Your task to perform on an android device: clear all cookies in the chrome app Image 0: 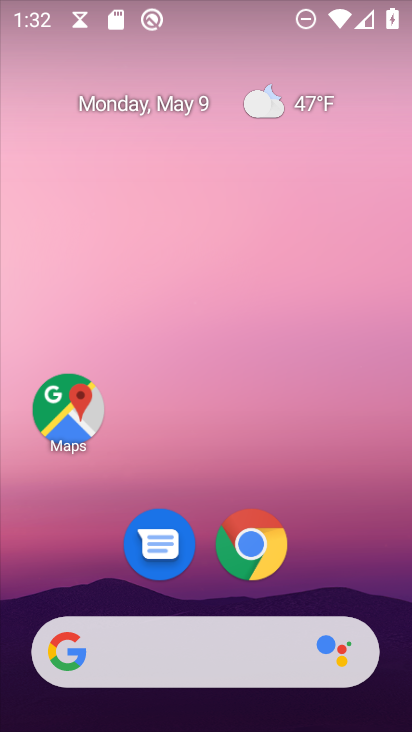
Step 0: drag from (323, 491) to (263, 79)
Your task to perform on an android device: clear all cookies in the chrome app Image 1: 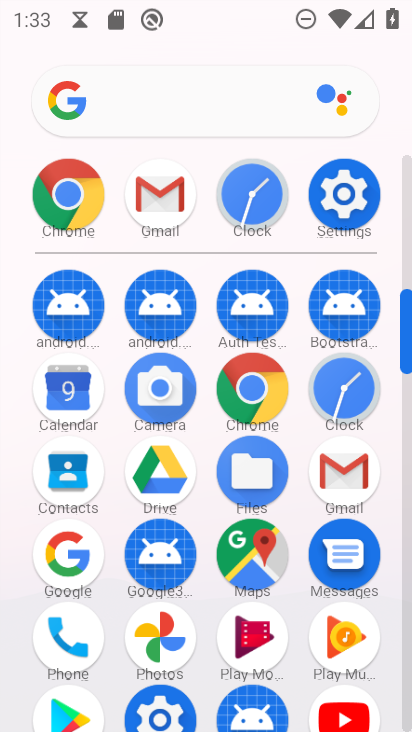
Step 1: click (75, 183)
Your task to perform on an android device: clear all cookies in the chrome app Image 2: 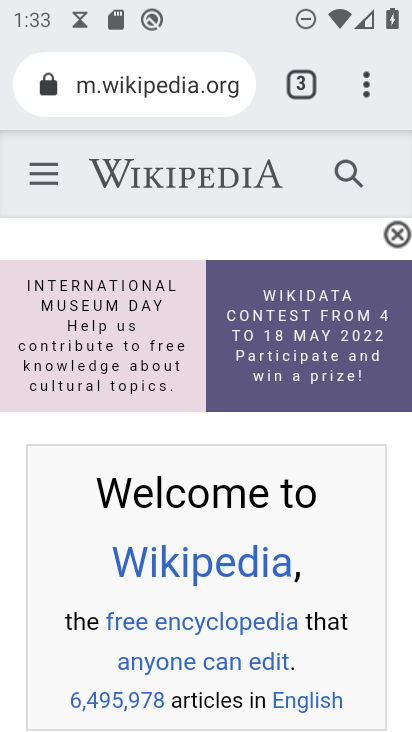
Step 2: drag from (378, 78) to (76, 469)
Your task to perform on an android device: clear all cookies in the chrome app Image 3: 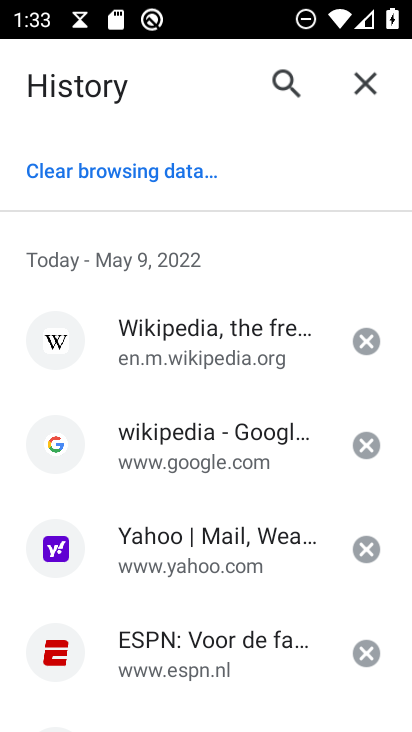
Step 3: click (118, 167)
Your task to perform on an android device: clear all cookies in the chrome app Image 4: 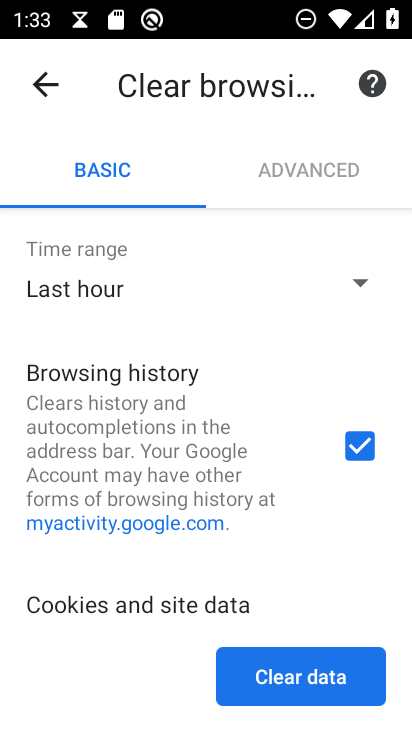
Step 4: click (346, 443)
Your task to perform on an android device: clear all cookies in the chrome app Image 5: 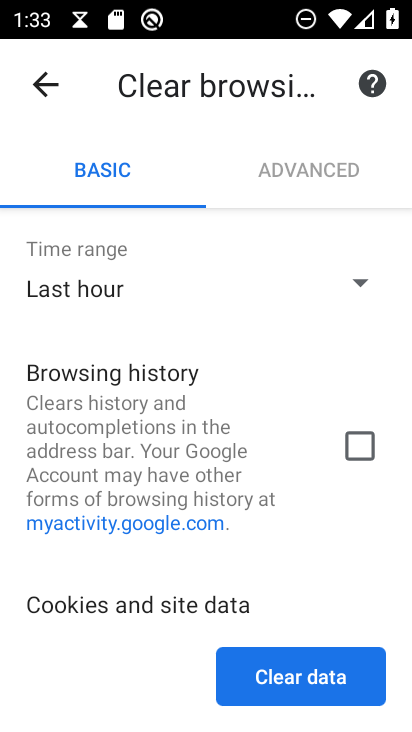
Step 5: drag from (266, 517) to (238, 174)
Your task to perform on an android device: clear all cookies in the chrome app Image 6: 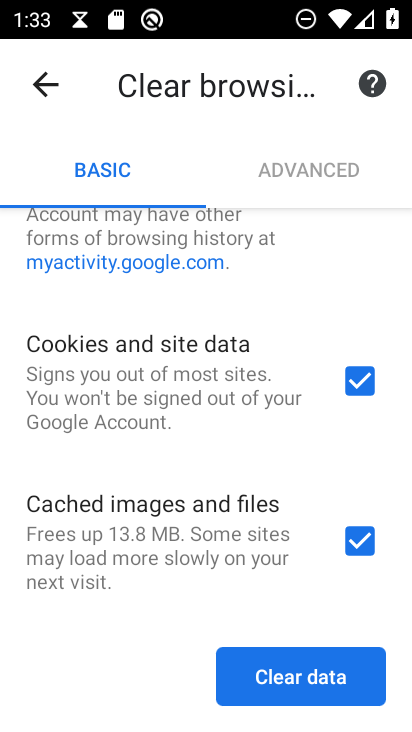
Step 6: drag from (228, 434) to (238, 313)
Your task to perform on an android device: clear all cookies in the chrome app Image 7: 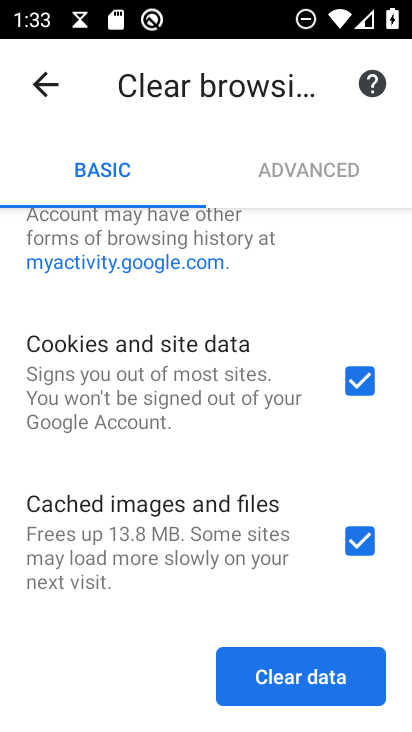
Step 7: click (366, 538)
Your task to perform on an android device: clear all cookies in the chrome app Image 8: 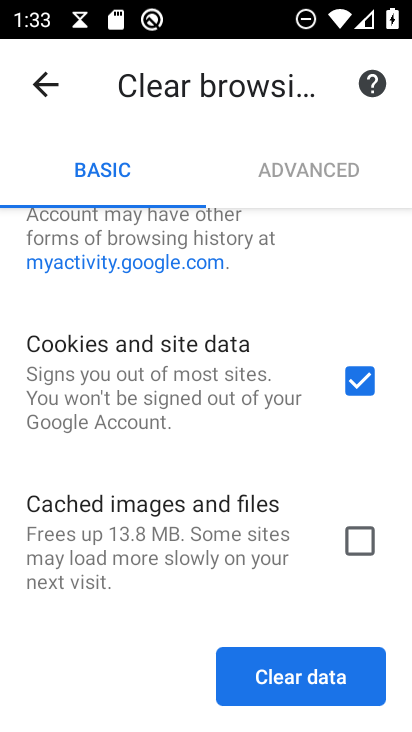
Step 8: click (326, 669)
Your task to perform on an android device: clear all cookies in the chrome app Image 9: 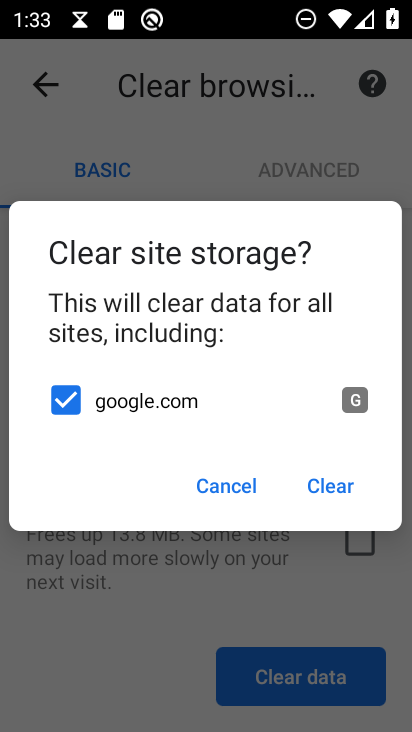
Step 9: click (321, 489)
Your task to perform on an android device: clear all cookies in the chrome app Image 10: 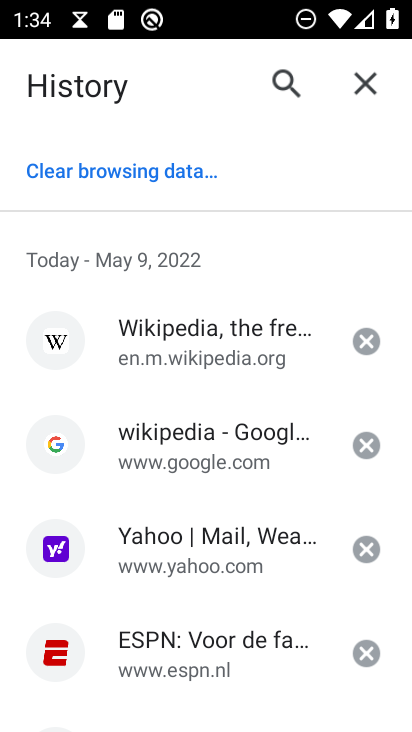
Step 10: task complete